Your task to perform on an android device: uninstall "Spotify: Music and Podcasts" Image 0: 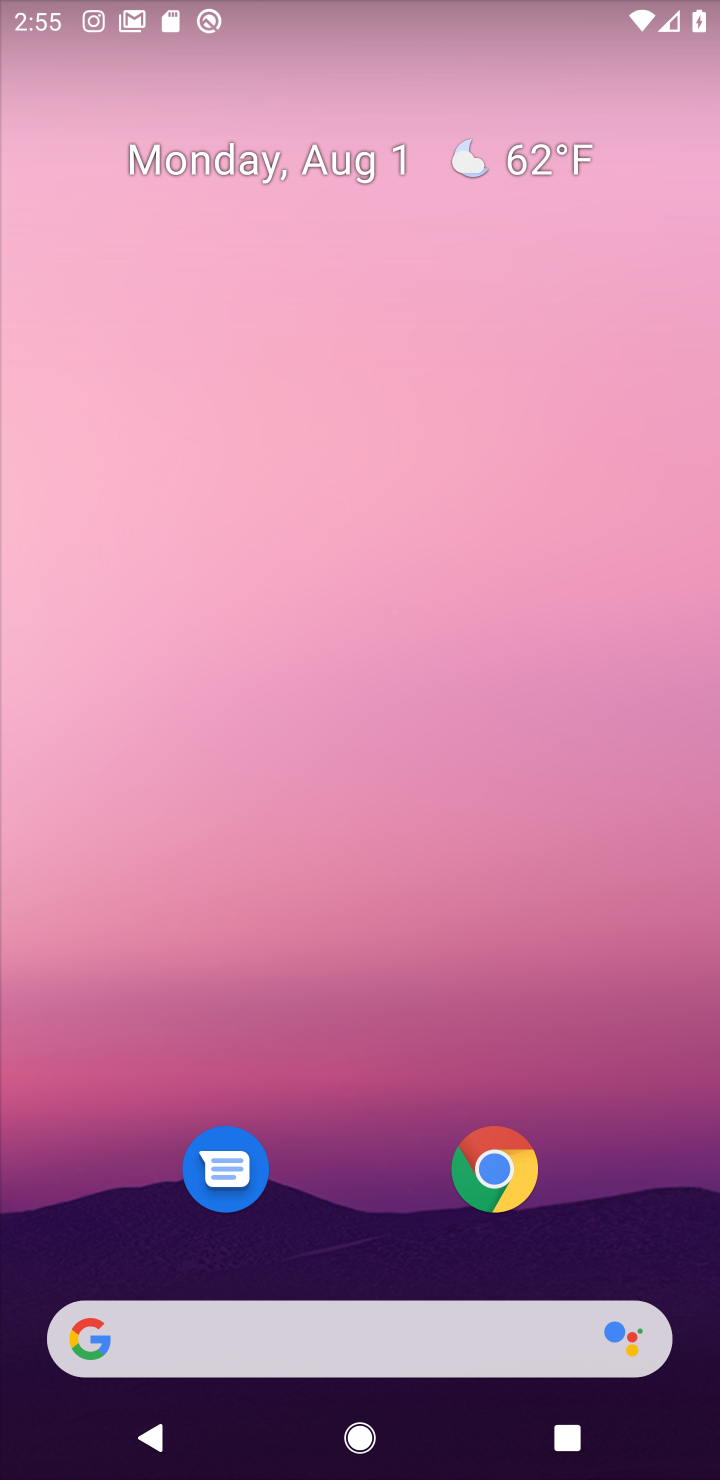
Step 0: drag from (313, 1229) to (283, 390)
Your task to perform on an android device: uninstall "Spotify: Music and Podcasts" Image 1: 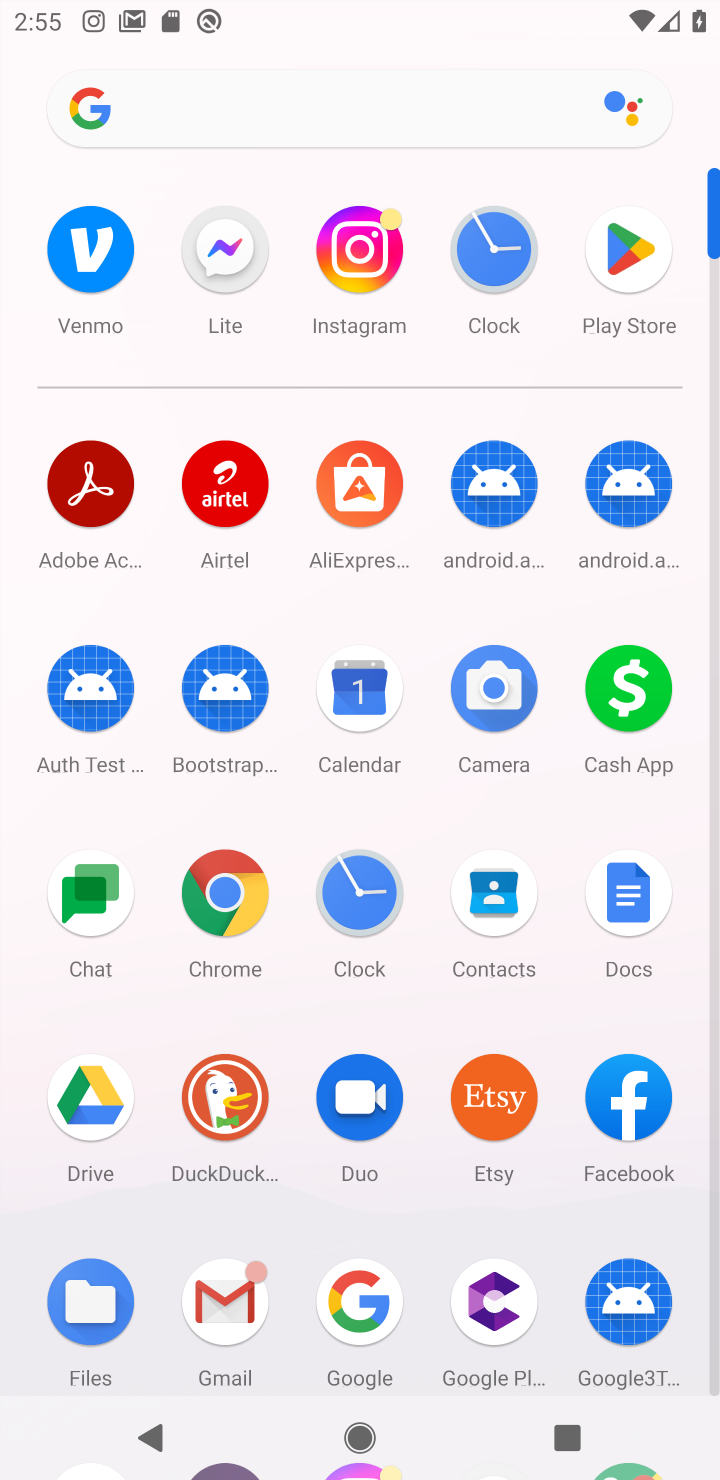
Step 1: click (630, 292)
Your task to perform on an android device: uninstall "Spotify: Music and Podcasts" Image 2: 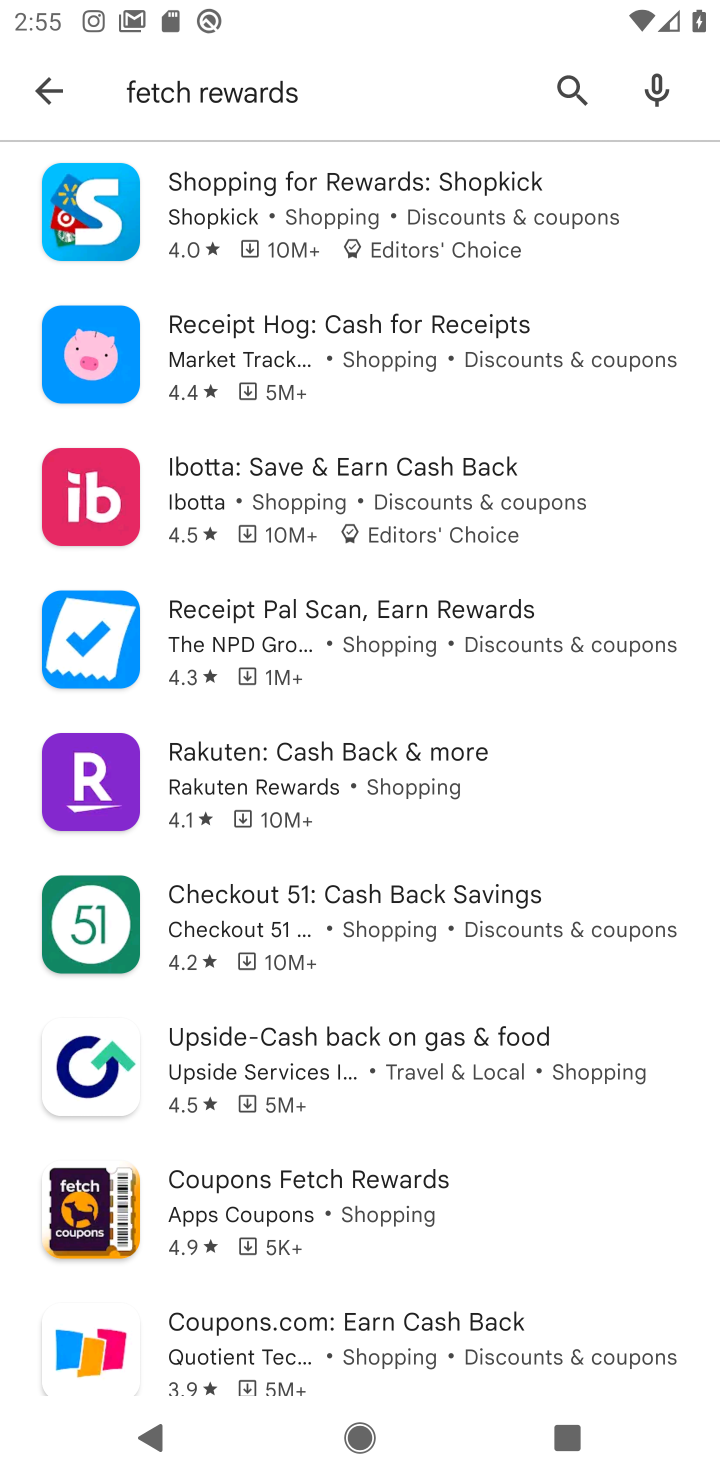
Step 2: click (36, 77)
Your task to perform on an android device: uninstall "Spotify: Music and Podcasts" Image 3: 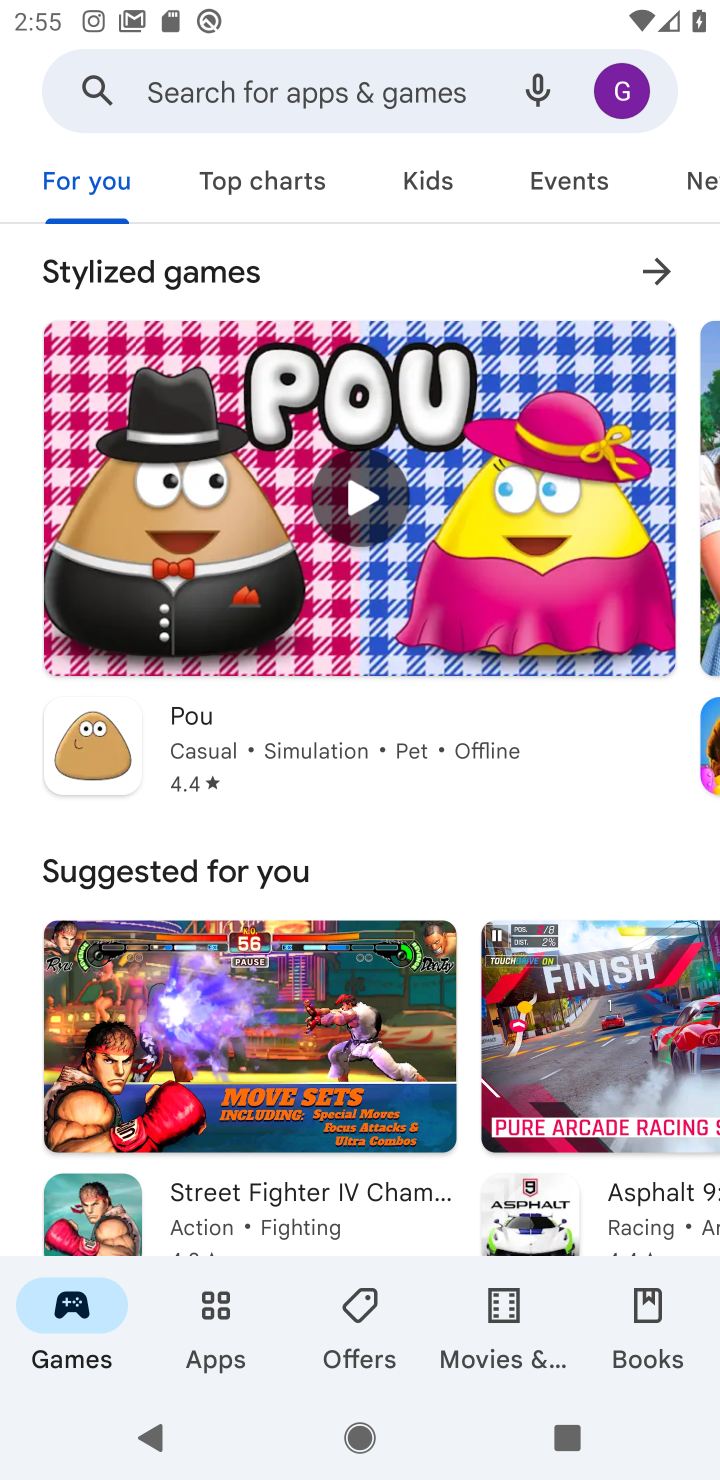
Step 3: click (195, 102)
Your task to perform on an android device: uninstall "Spotify: Music and Podcasts" Image 4: 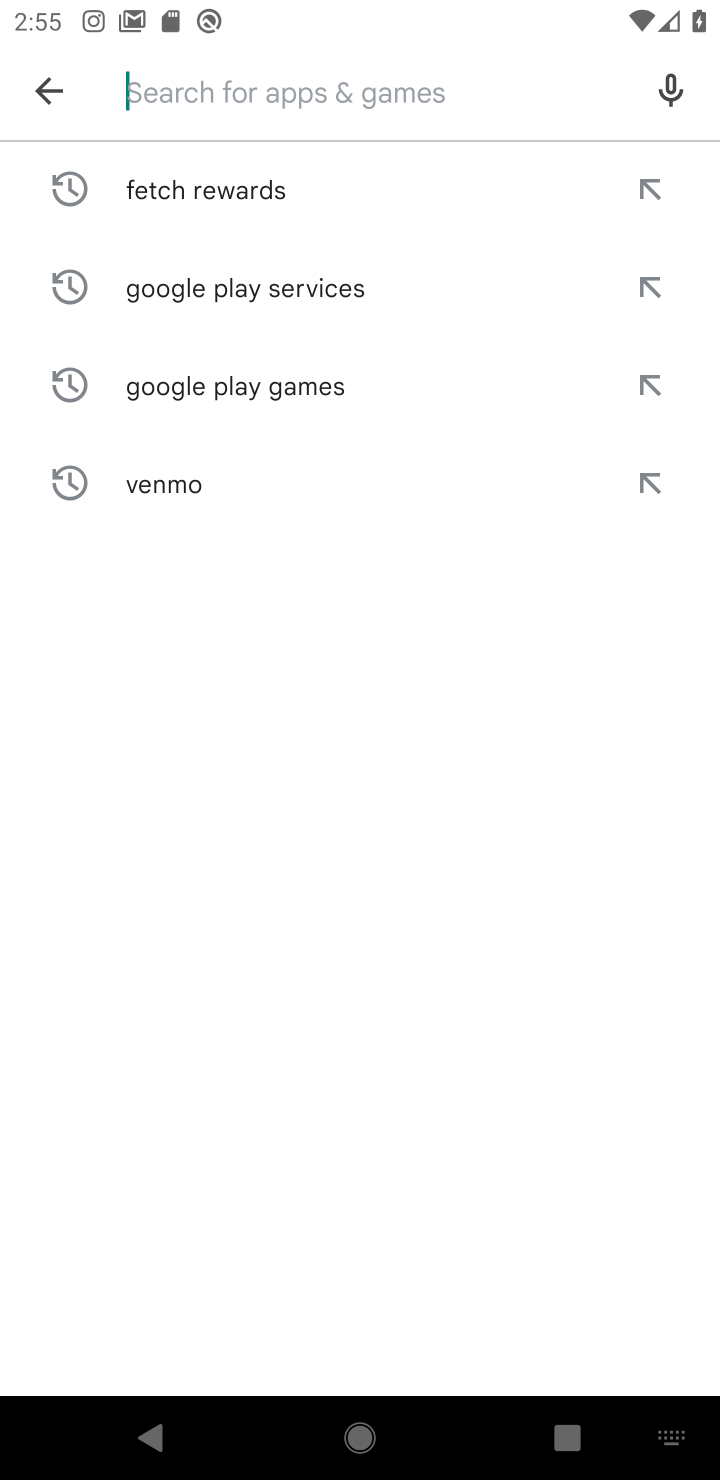
Step 4: type "Spotify"
Your task to perform on an android device: uninstall "Spotify: Music and Podcasts" Image 5: 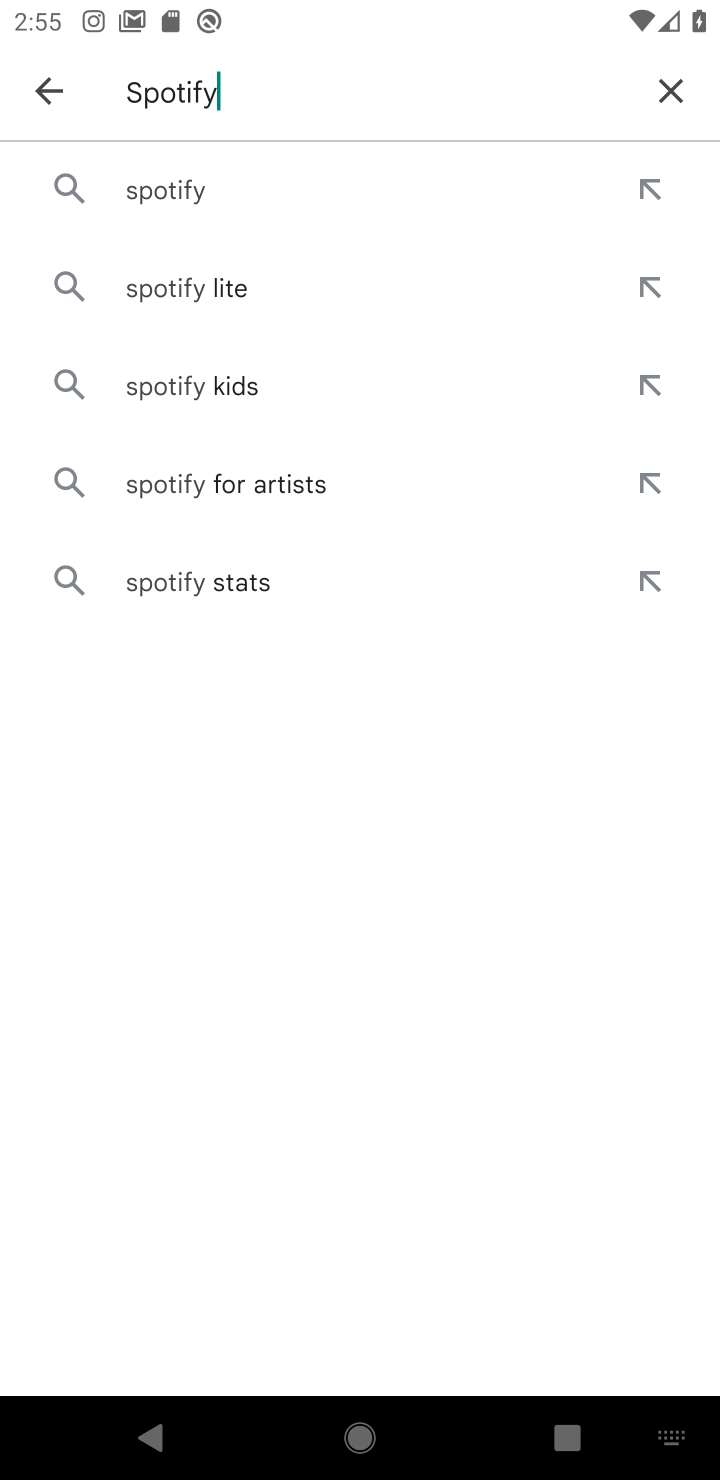
Step 5: click (162, 186)
Your task to perform on an android device: uninstall "Spotify: Music and Podcasts" Image 6: 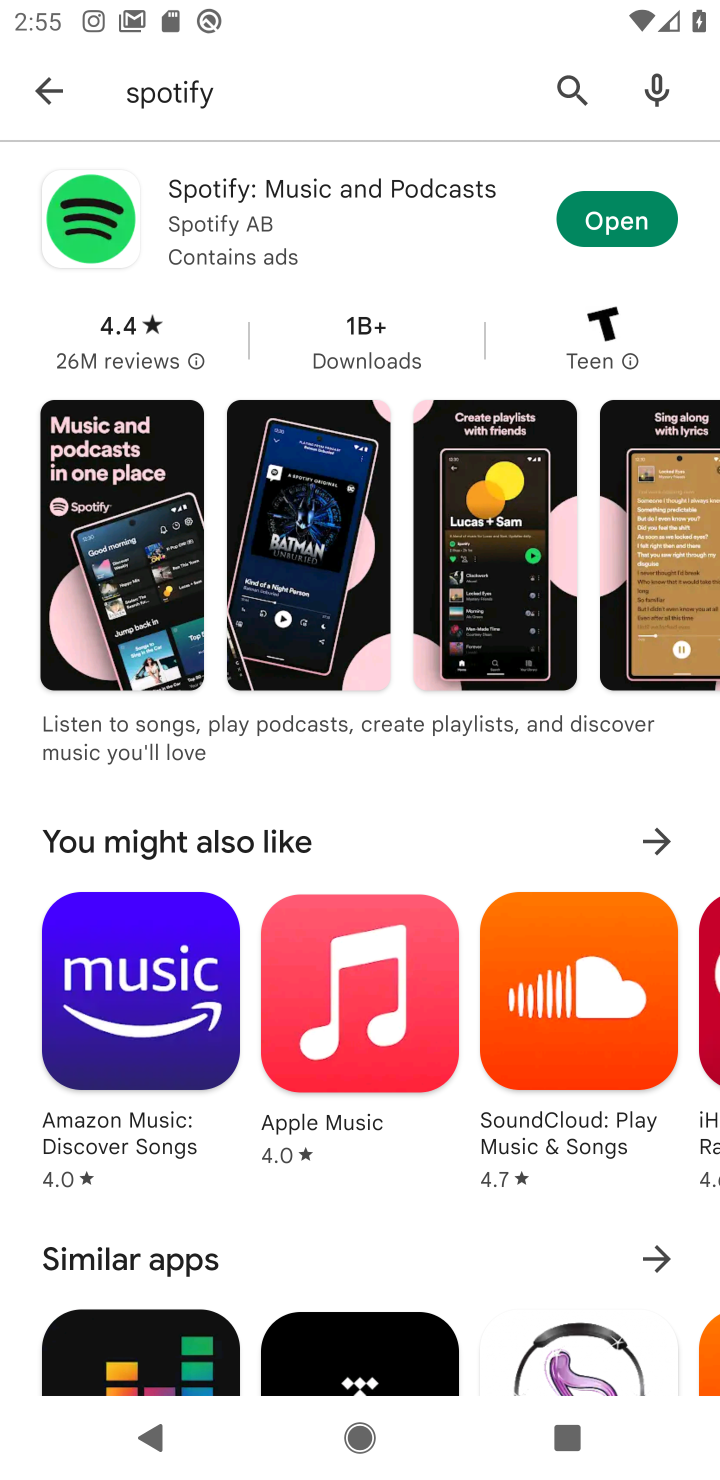
Step 6: click (603, 223)
Your task to perform on an android device: uninstall "Spotify: Music and Podcasts" Image 7: 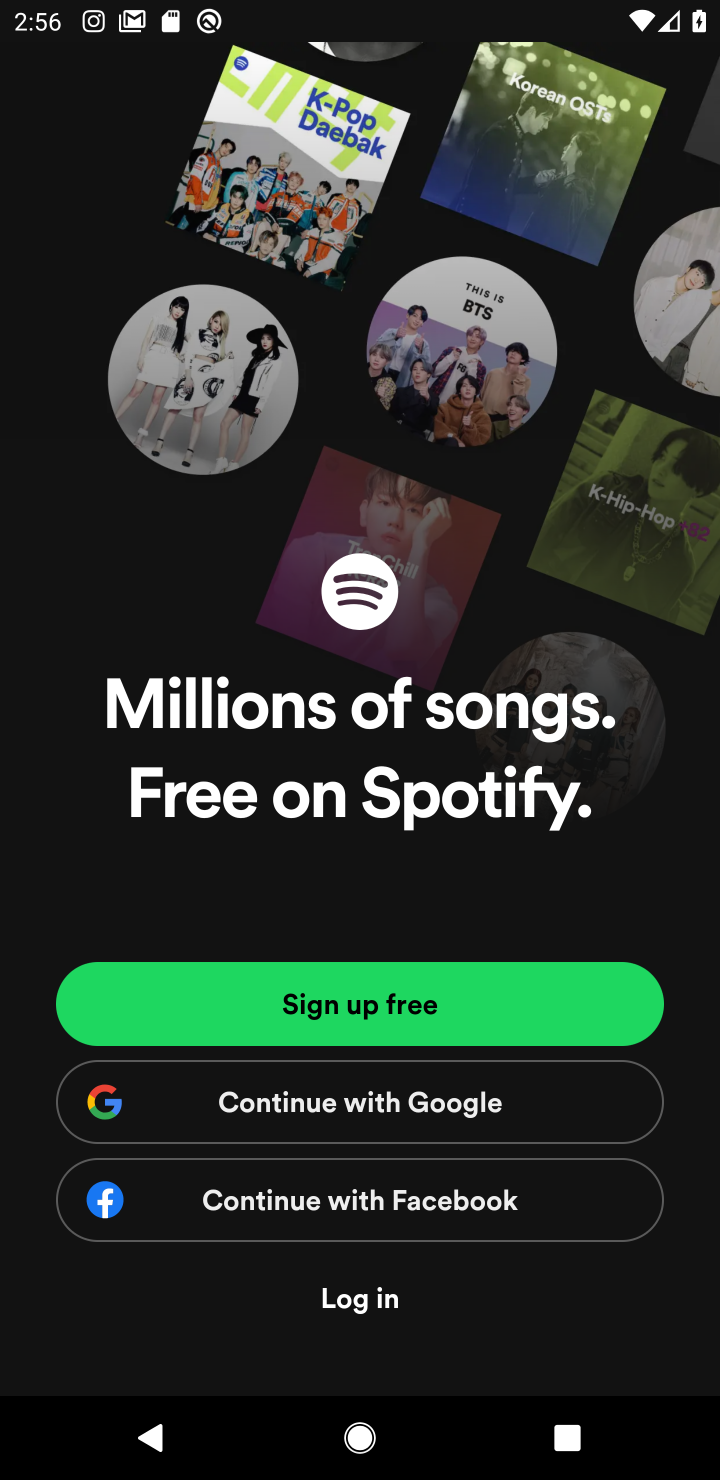
Step 7: task complete